Your task to perform on an android device: turn off location history Image 0: 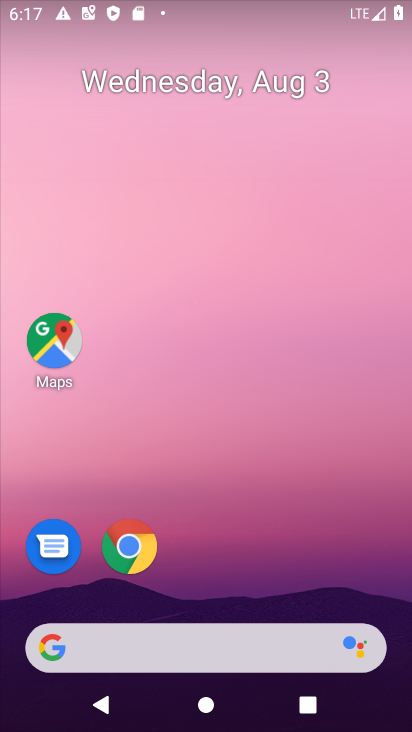
Step 0: press home button
Your task to perform on an android device: turn off location history Image 1: 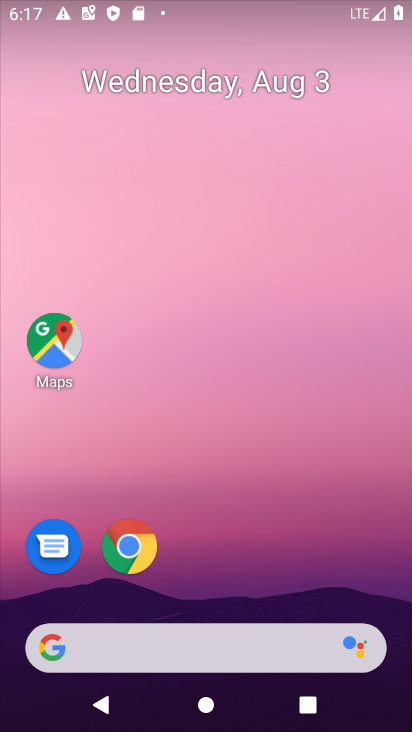
Step 1: drag from (271, 612) to (288, 141)
Your task to perform on an android device: turn off location history Image 2: 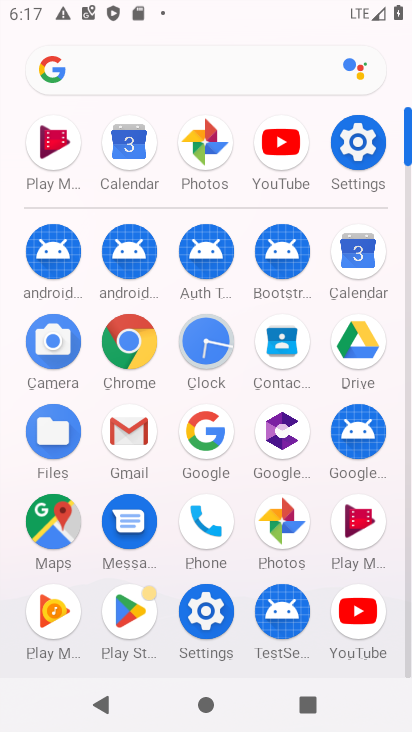
Step 2: click (354, 160)
Your task to perform on an android device: turn off location history Image 3: 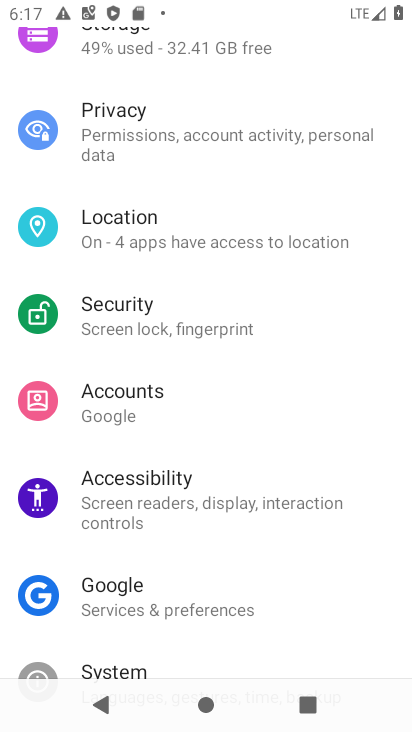
Step 3: click (159, 232)
Your task to perform on an android device: turn off location history Image 4: 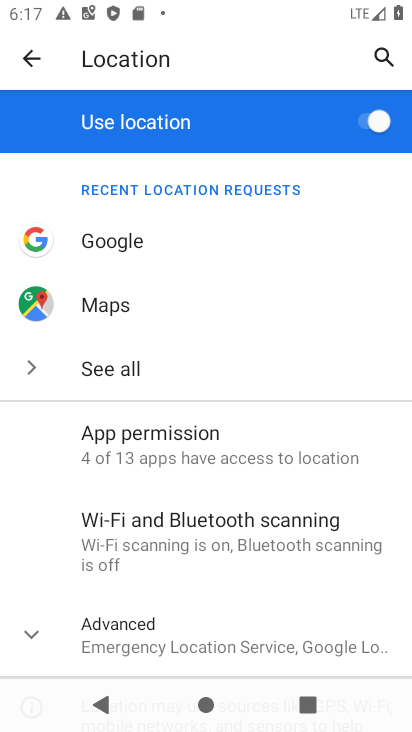
Step 4: click (176, 647)
Your task to perform on an android device: turn off location history Image 5: 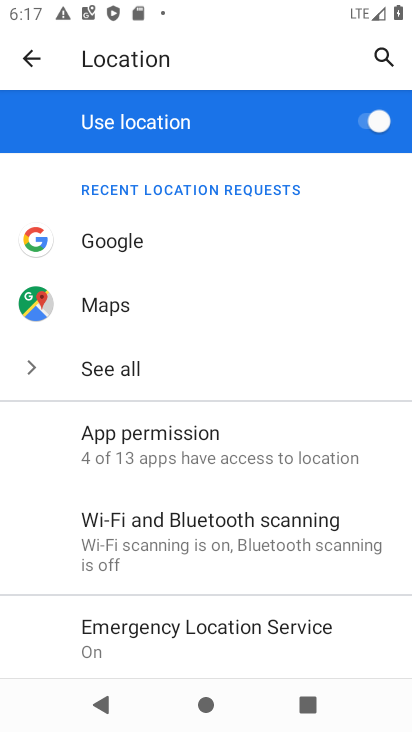
Step 5: drag from (364, 488) to (380, 59)
Your task to perform on an android device: turn off location history Image 6: 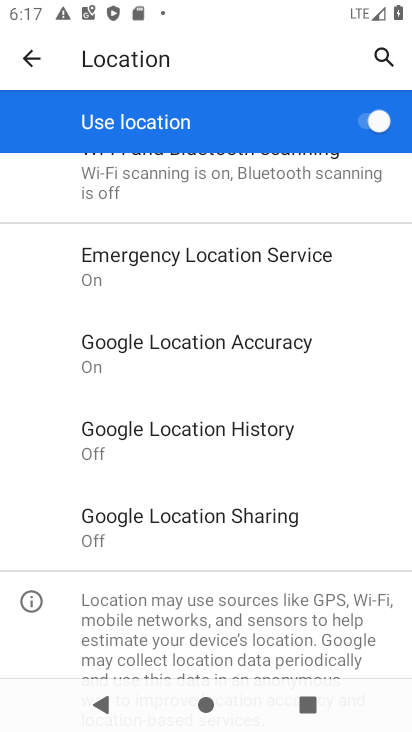
Step 6: click (201, 429)
Your task to perform on an android device: turn off location history Image 7: 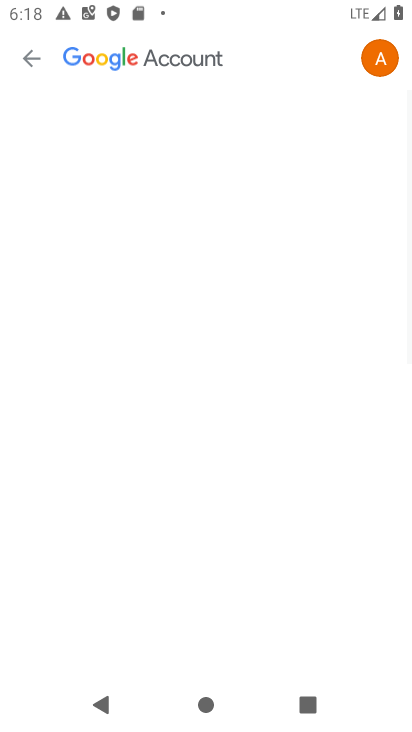
Step 7: click (378, 129)
Your task to perform on an android device: turn off location history Image 8: 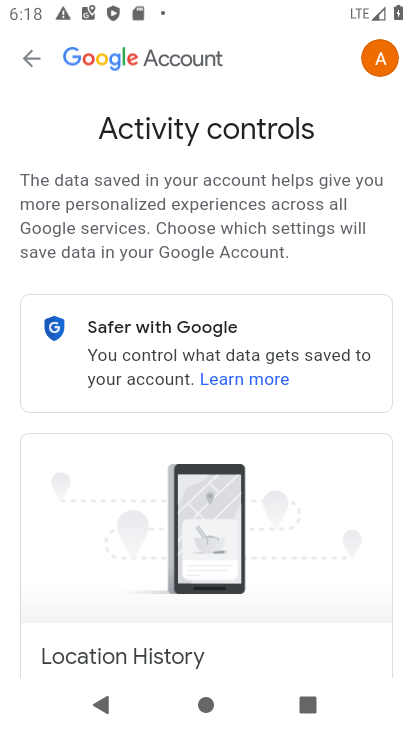
Step 8: task complete